Your task to perform on an android device: Show me popular games on the Play Store Image 0: 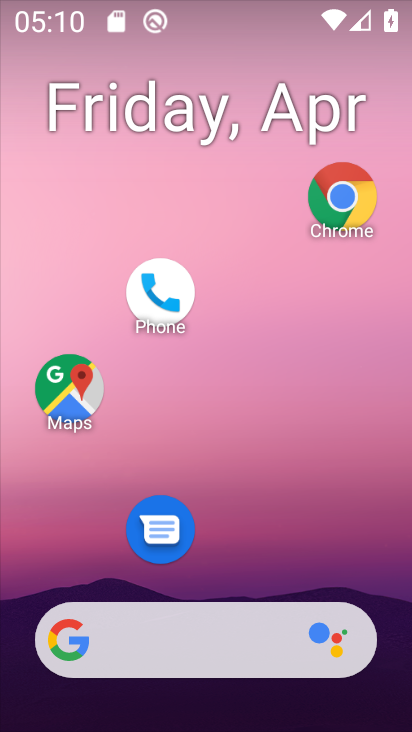
Step 0: drag from (244, 581) to (274, 84)
Your task to perform on an android device: Show me popular games on the Play Store Image 1: 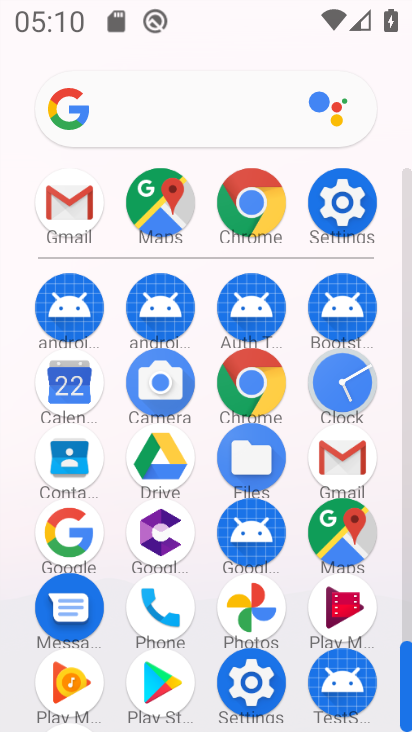
Step 1: click (157, 676)
Your task to perform on an android device: Show me popular games on the Play Store Image 2: 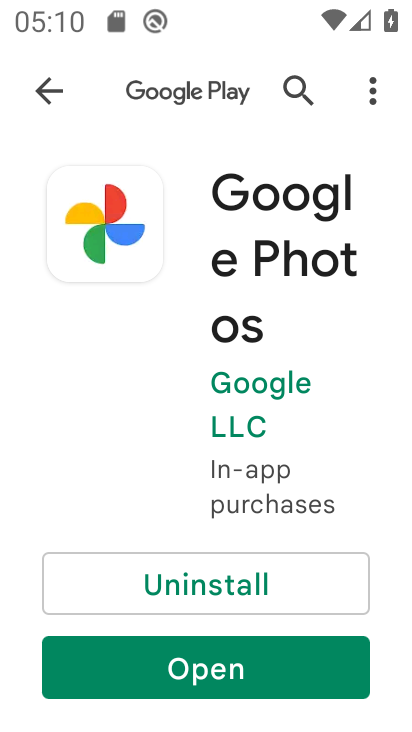
Step 2: click (58, 96)
Your task to perform on an android device: Show me popular games on the Play Store Image 3: 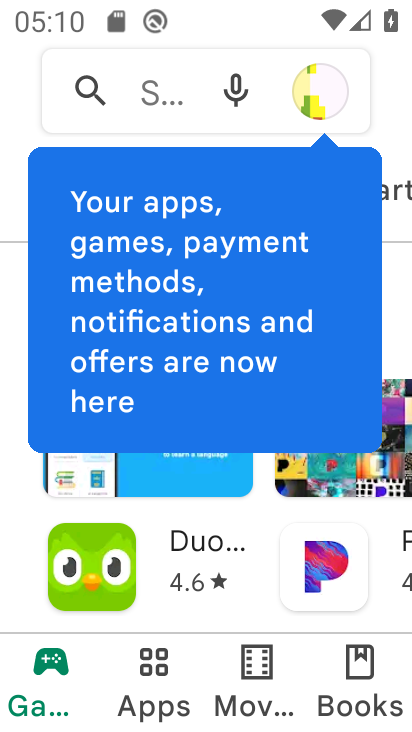
Step 3: click (6, 131)
Your task to perform on an android device: Show me popular games on the Play Store Image 4: 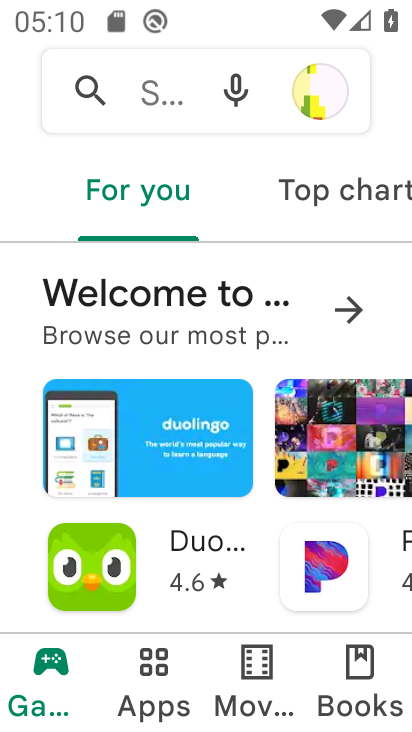
Step 4: drag from (171, 516) to (207, 222)
Your task to perform on an android device: Show me popular games on the Play Store Image 5: 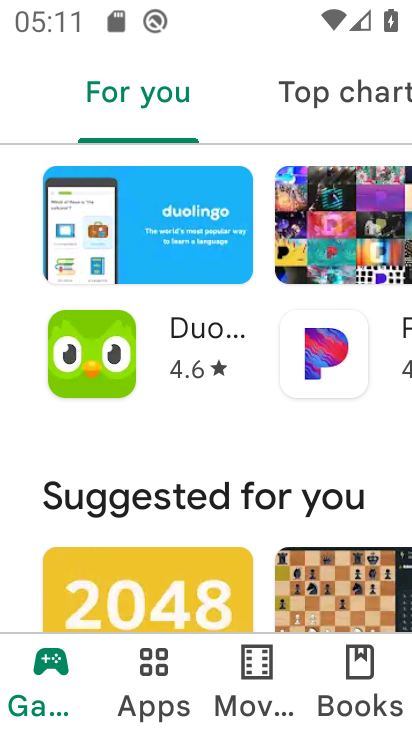
Step 5: drag from (261, 604) to (283, 184)
Your task to perform on an android device: Show me popular games on the Play Store Image 6: 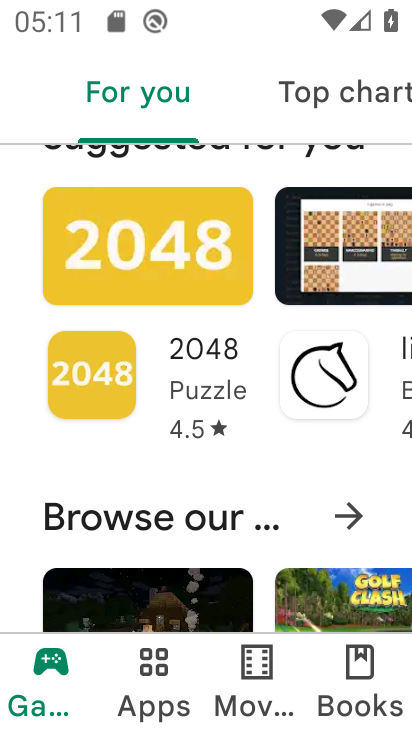
Step 6: drag from (259, 192) to (269, 611)
Your task to perform on an android device: Show me popular games on the Play Store Image 7: 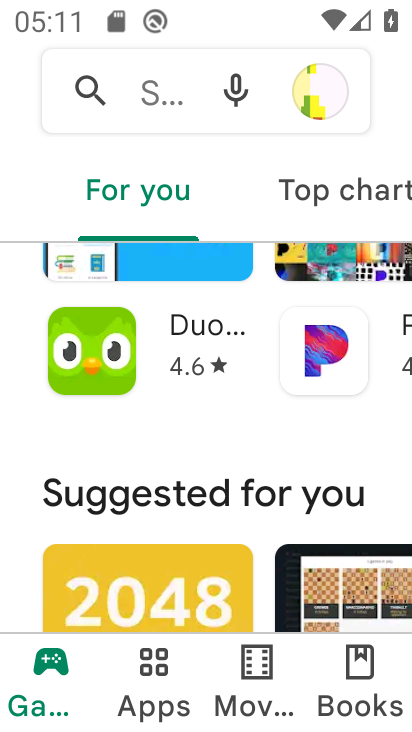
Step 7: drag from (379, 203) to (95, 194)
Your task to perform on an android device: Show me popular games on the Play Store Image 8: 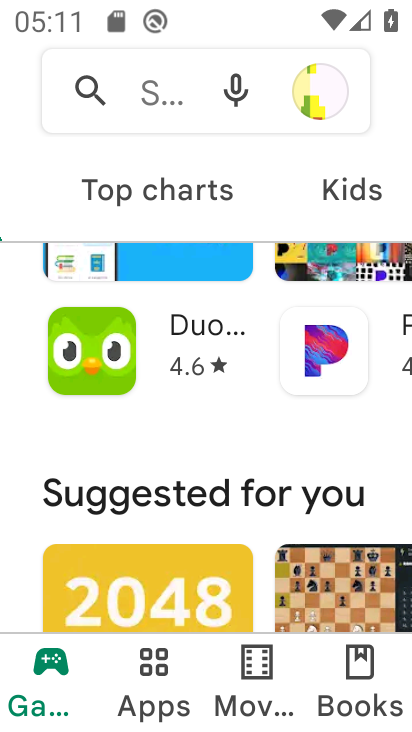
Step 8: drag from (376, 199) to (3, 222)
Your task to perform on an android device: Show me popular games on the Play Store Image 9: 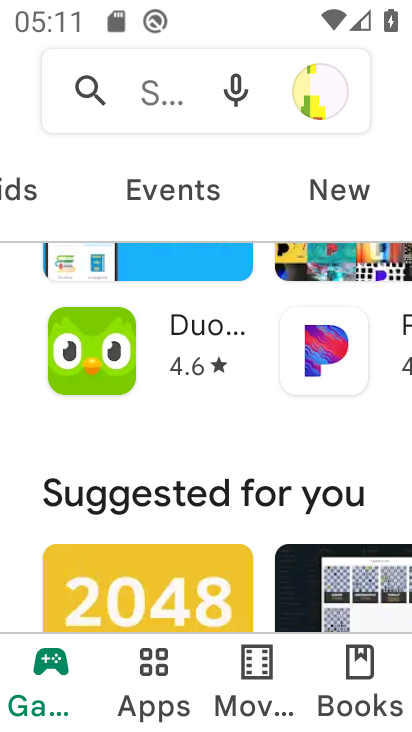
Step 9: drag from (368, 208) to (24, 186)
Your task to perform on an android device: Show me popular games on the Play Store Image 10: 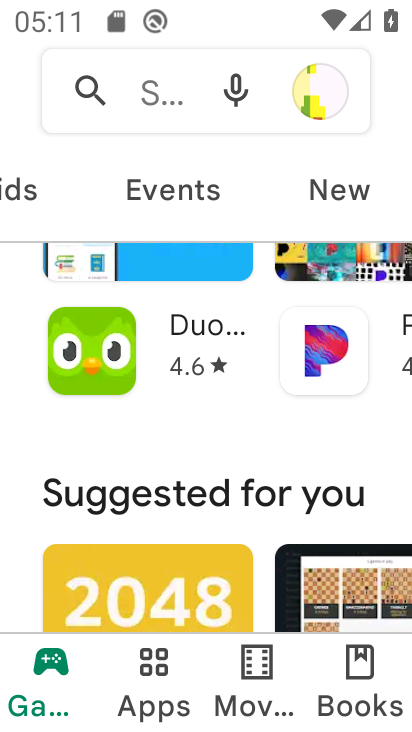
Step 10: drag from (349, 201) to (22, 200)
Your task to perform on an android device: Show me popular games on the Play Store Image 11: 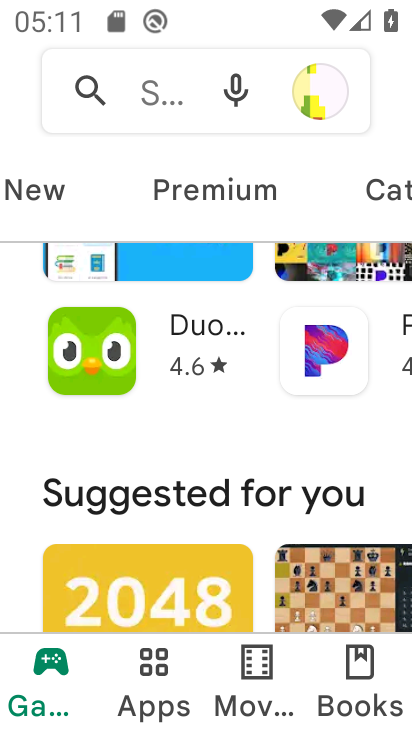
Step 11: click (385, 202)
Your task to perform on an android device: Show me popular games on the Play Store Image 12: 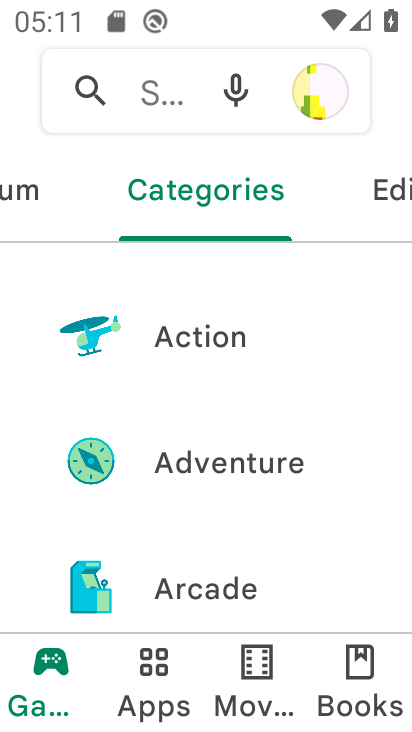
Step 12: drag from (217, 578) to (242, 86)
Your task to perform on an android device: Show me popular games on the Play Store Image 13: 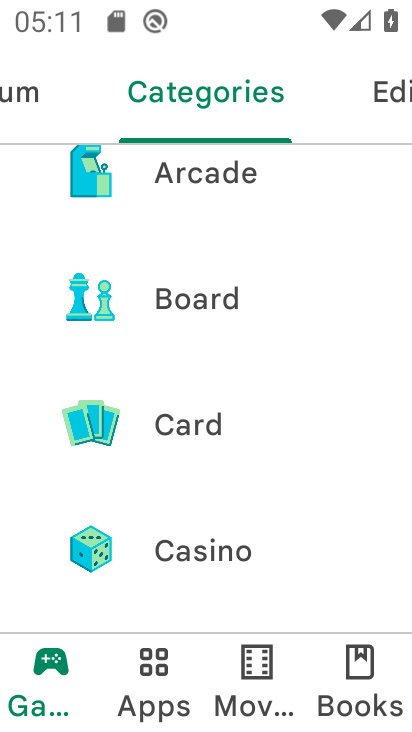
Step 13: drag from (240, 535) to (280, 91)
Your task to perform on an android device: Show me popular games on the Play Store Image 14: 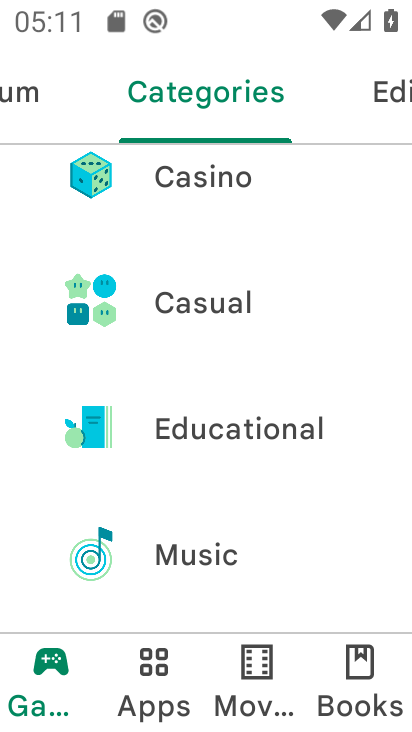
Step 14: drag from (259, 595) to (283, 159)
Your task to perform on an android device: Show me popular games on the Play Store Image 15: 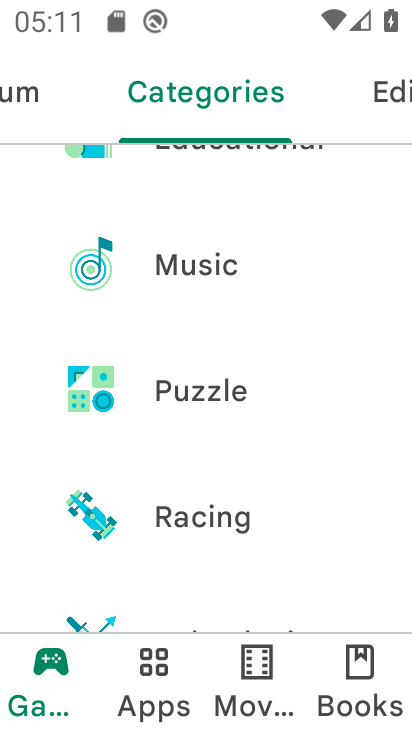
Step 15: drag from (235, 570) to (287, 171)
Your task to perform on an android device: Show me popular games on the Play Store Image 16: 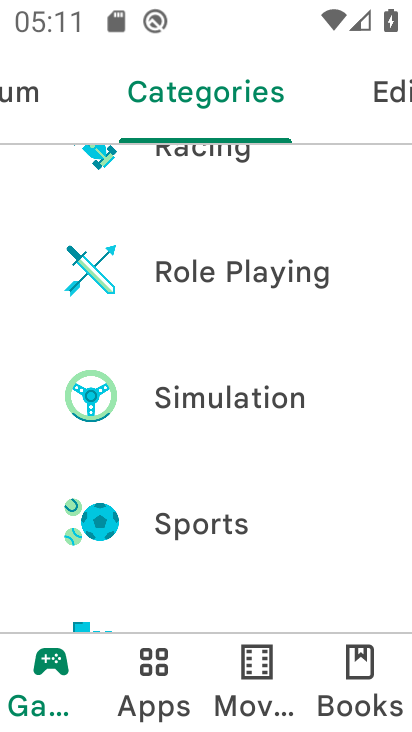
Step 16: drag from (270, 554) to (296, 158)
Your task to perform on an android device: Show me popular games on the Play Store Image 17: 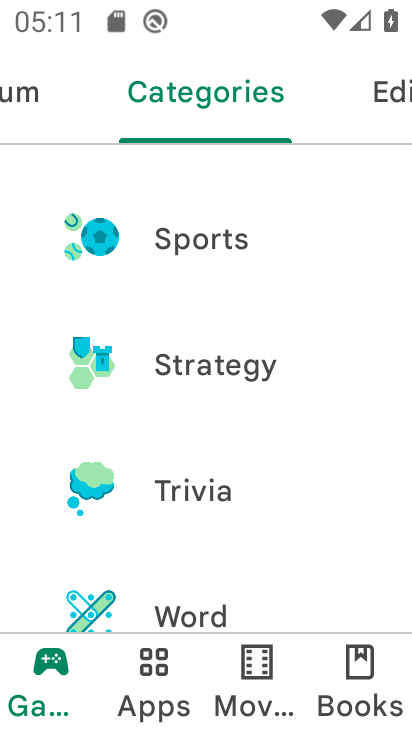
Step 17: drag from (283, 197) to (303, 621)
Your task to perform on an android device: Show me popular games on the Play Store Image 18: 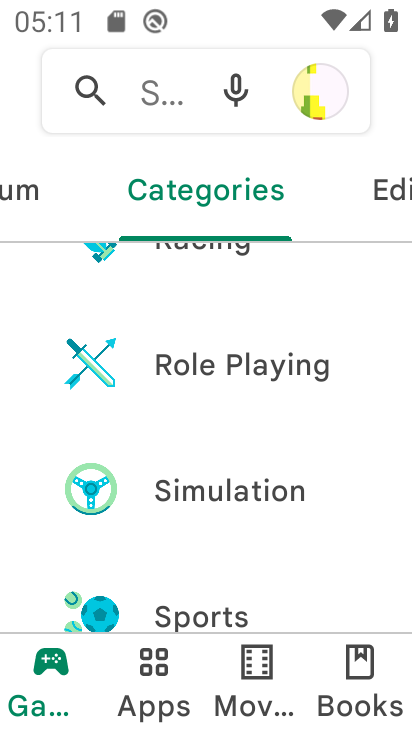
Step 18: drag from (252, 281) to (252, 632)
Your task to perform on an android device: Show me popular games on the Play Store Image 19: 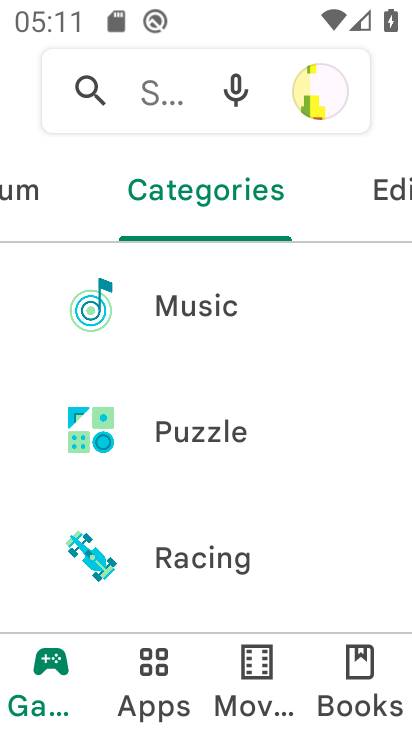
Step 19: drag from (139, 209) to (406, 216)
Your task to perform on an android device: Show me popular games on the Play Store Image 20: 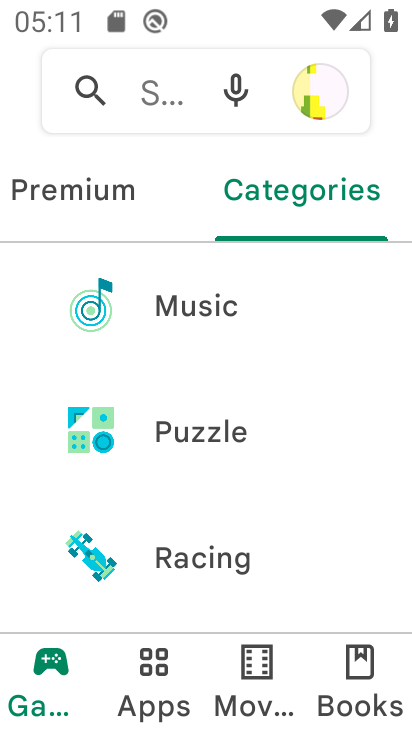
Step 20: drag from (20, 210) to (408, 211)
Your task to perform on an android device: Show me popular games on the Play Store Image 21: 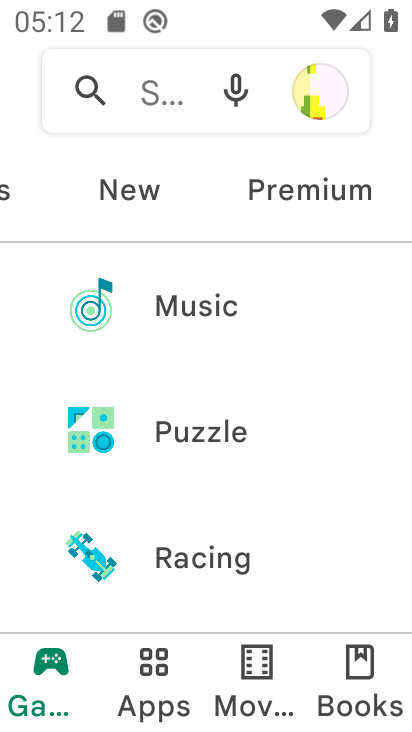
Step 21: drag from (8, 210) to (409, 225)
Your task to perform on an android device: Show me popular games on the Play Store Image 22: 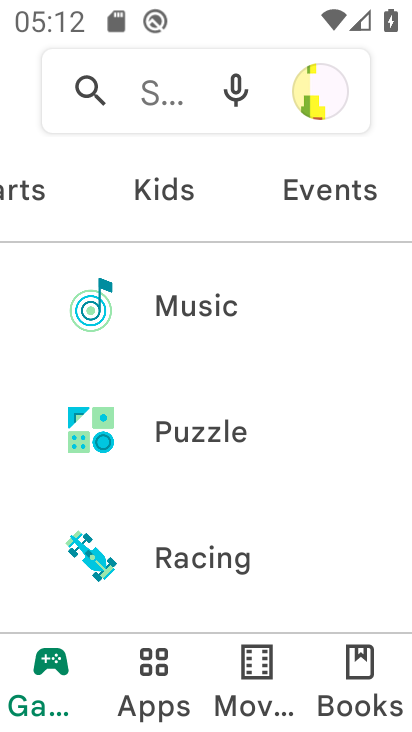
Step 22: drag from (252, 220) to (411, 221)
Your task to perform on an android device: Show me popular games on the Play Store Image 23: 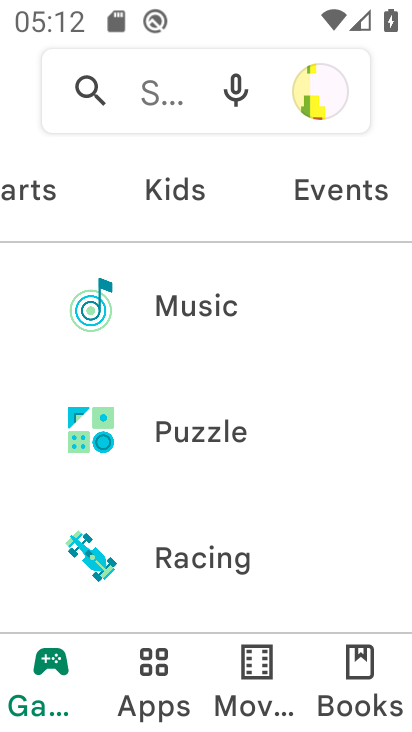
Step 23: drag from (20, 208) to (404, 223)
Your task to perform on an android device: Show me popular games on the Play Store Image 24: 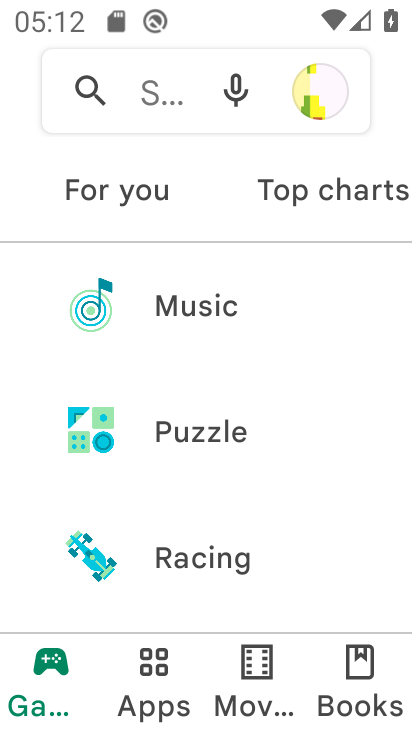
Step 24: click (91, 212)
Your task to perform on an android device: Show me popular games on the Play Store Image 25: 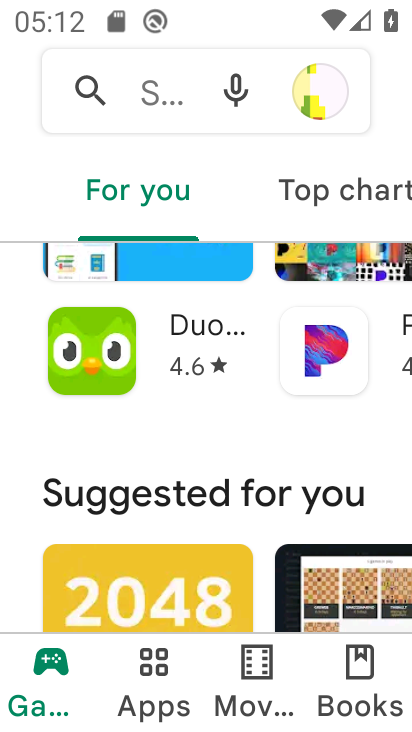
Step 25: drag from (175, 521) to (214, 251)
Your task to perform on an android device: Show me popular games on the Play Store Image 26: 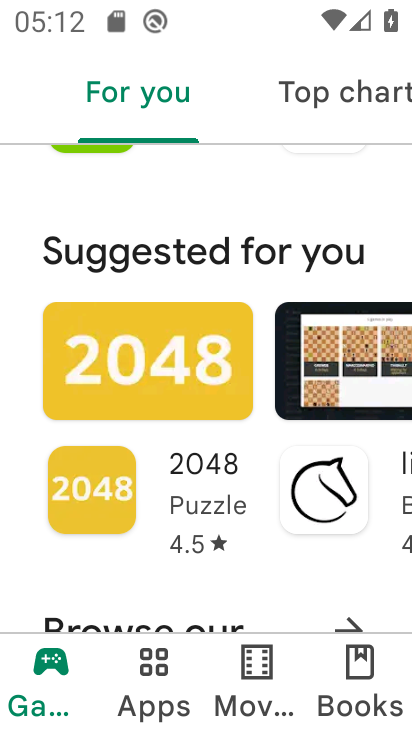
Step 26: drag from (211, 531) to (245, 250)
Your task to perform on an android device: Show me popular games on the Play Store Image 27: 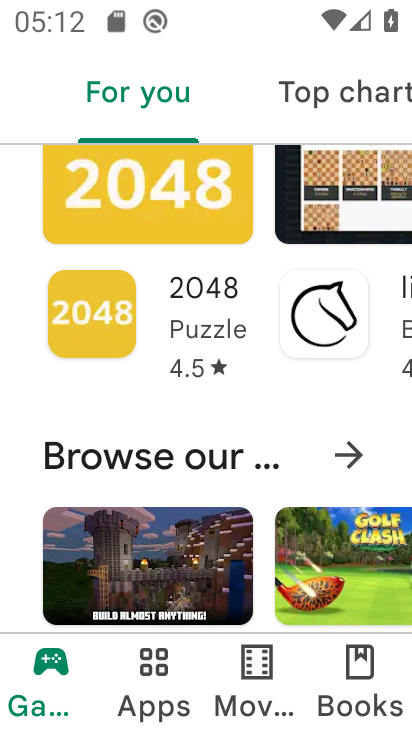
Step 27: drag from (245, 589) to (257, 187)
Your task to perform on an android device: Show me popular games on the Play Store Image 28: 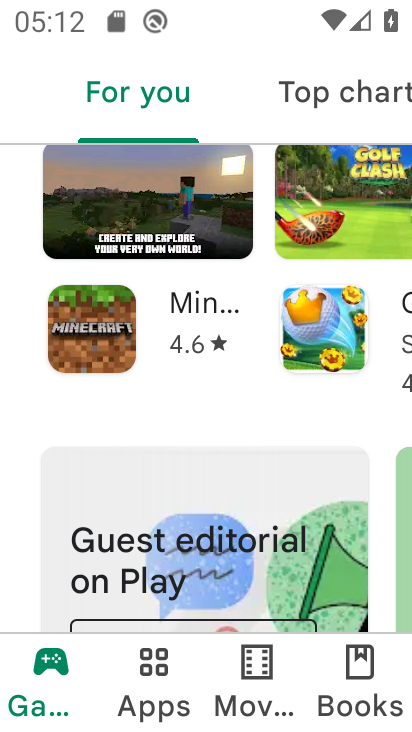
Step 28: drag from (250, 520) to (274, 182)
Your task to perform on an android device: Show me popular games on the Play Store Image 29: 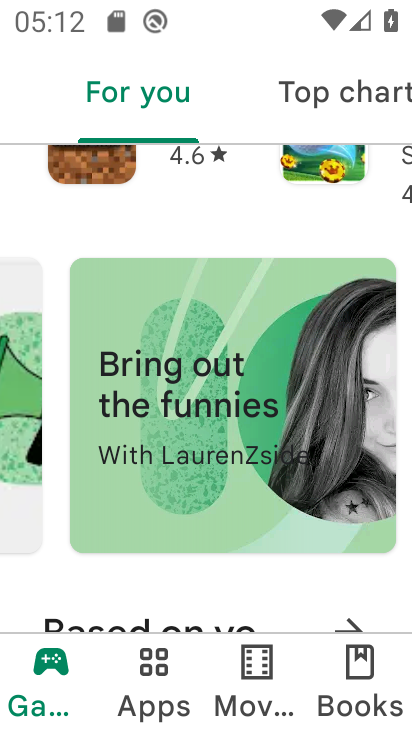
Step 29: drag from (251, 517) to (284, 152)
Your task to perform on an android device: Show me popular games on the Play Store Image 30: 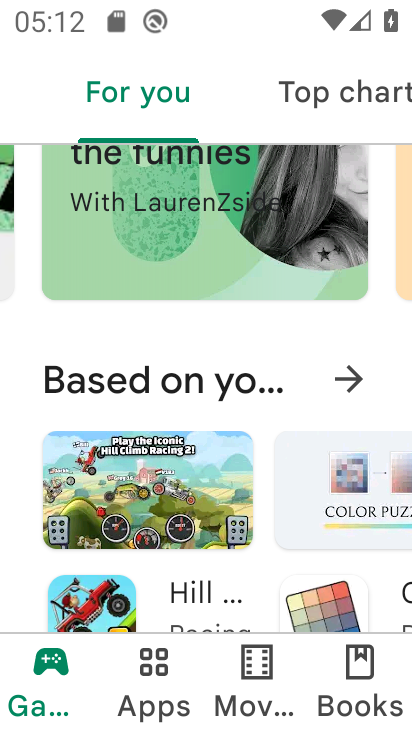
Step 30: drag from (262, 244) to (286, 690)
Your task to perform on an android device: Show me popular games on the Play Store Image 31: 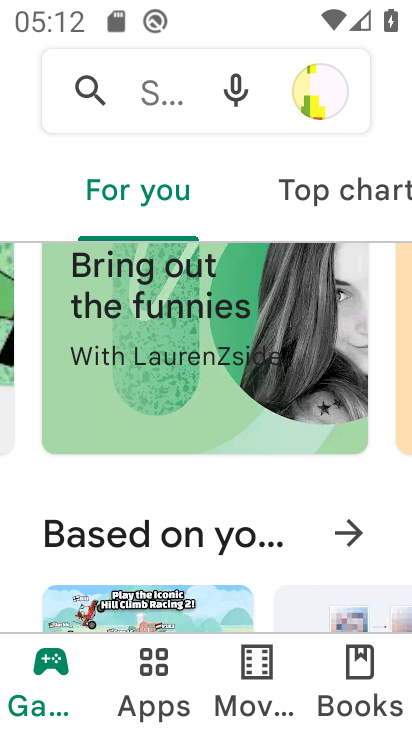
Step 31: drag from (221, 303) to (241, 714)
Your task to perform on an android device: Show me popular games on the Play Store Image 32: 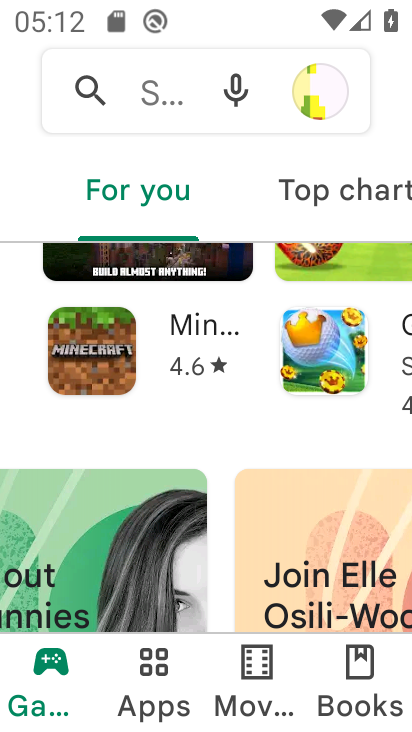
Step 32: drag from (236, 371) to (236, 714)
Your task to perform on an android device: Show me popular games on the Play Store Image 33: 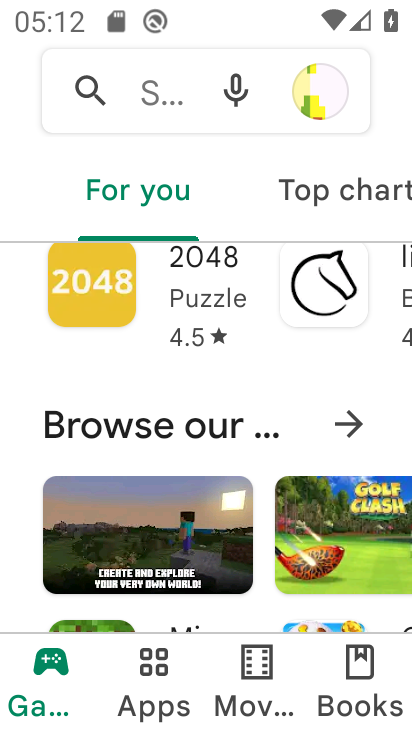
Step 33: drag from (263, 459) to (289, 405)
Your task to perform on an android device: Show me popular games on the Play Store Image 34: 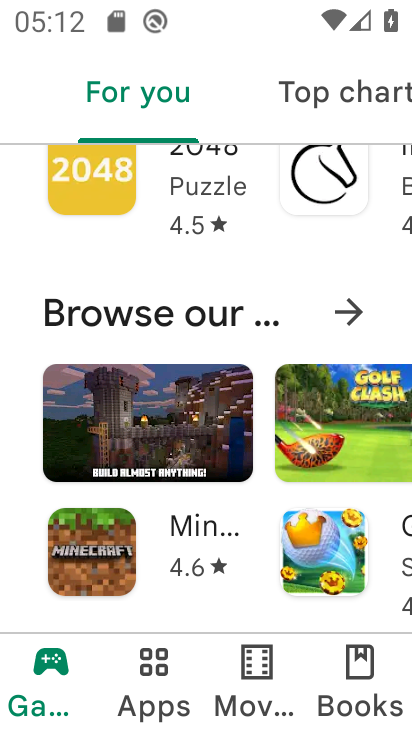
Step 34: click (350, 319)
Your task to perform on an android device: Show me popular games on the Play Store Image 35: 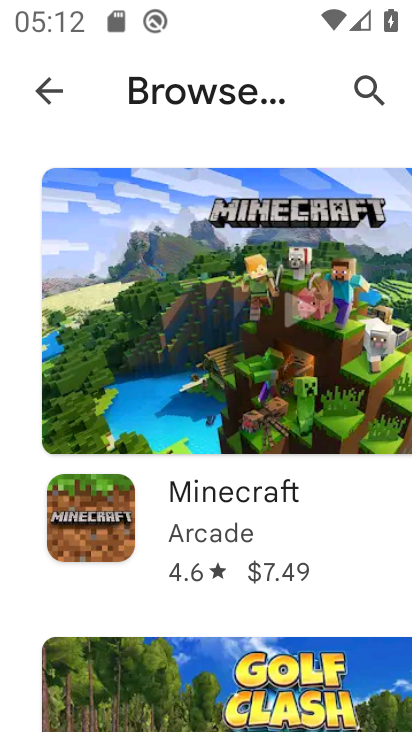
Step 35: task complete